Your task to perform on an android device: open app "NewsBreak: Local News & Alerts" (install if not already installed) Image 0: 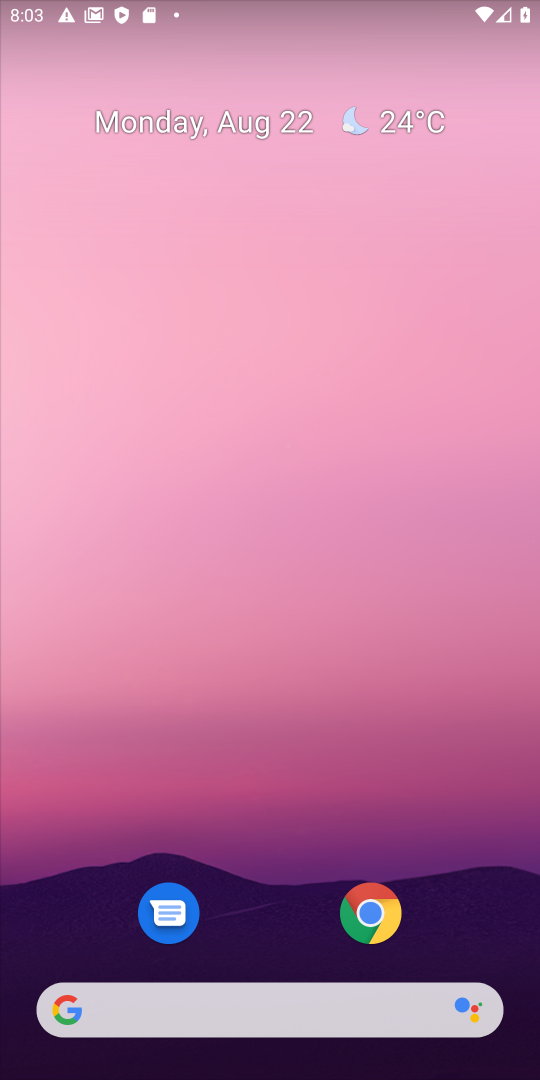
Step 0: drag from (255, 1005) to (168, 0)
Your task to perform on an android device: open app "NewsBreak: Local News & Alerts" (install if not already installed) Image 1: 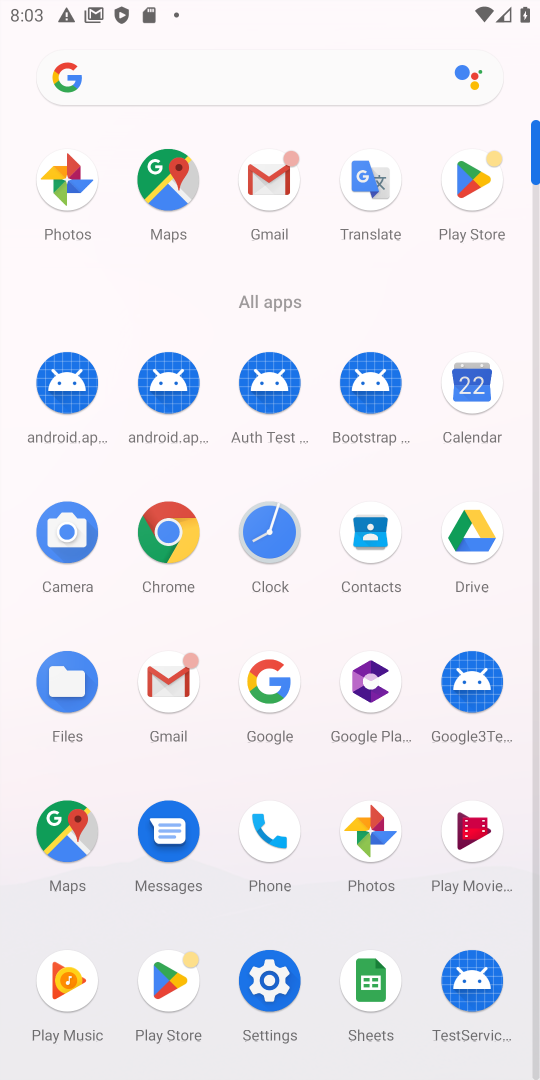
Step 1: click (480, 183)
Your task to perform on an android device: open app "NewsBreak: Local News & Alerts" (install if not already installed) Image 2: 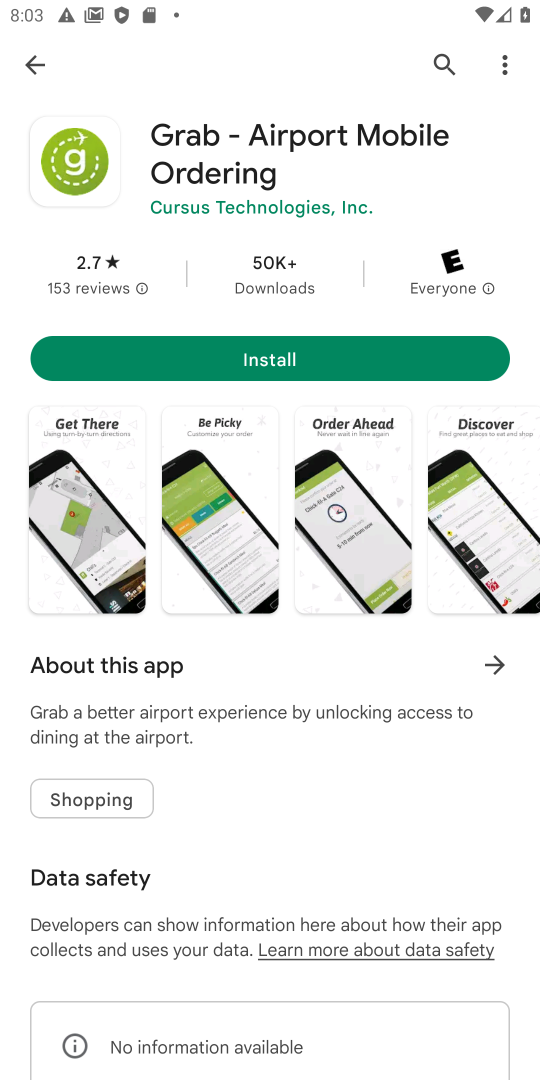
Step 2: click (460, 83)
Your task to perform on an android device: open app "NewsBreak: Local News & Alerts" (install if not already installed) Image 3: 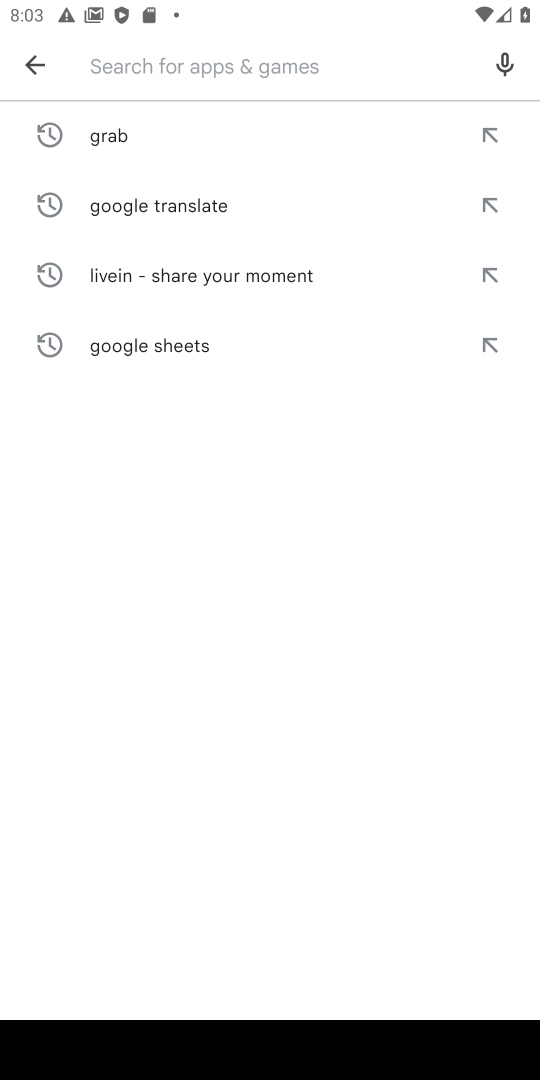
Step 3: type "newsbreak"
Your task to perform on an android device: open app "NewsBreak: Local News & Alerts" (install if not already installed) Image 4: 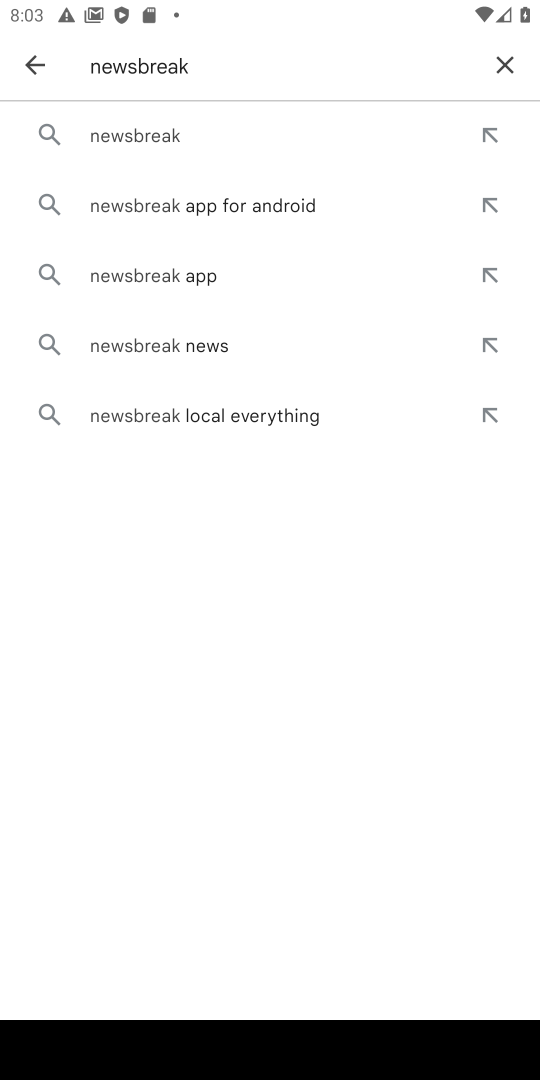
Step 4: click (175, 141)
Your task to perform on an android device: open app "NewsBreak: Local News & Alerts" (install if not already installed) Image 5: 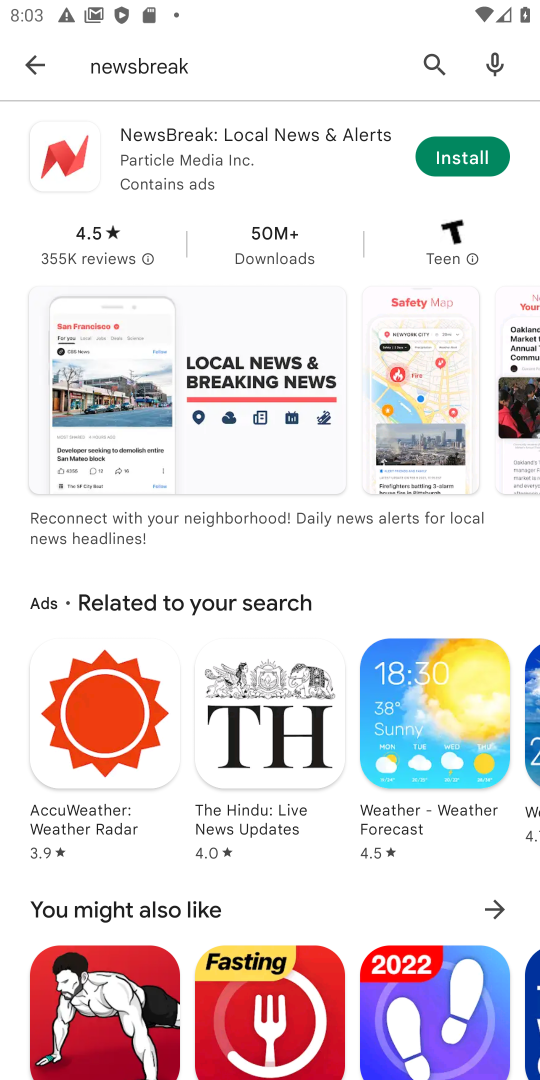
Step 5: click (455, 153)
Your task to perform on an android device: open app "NewsBreak: Local News & Alerts" (install if not already installed) Image 6: 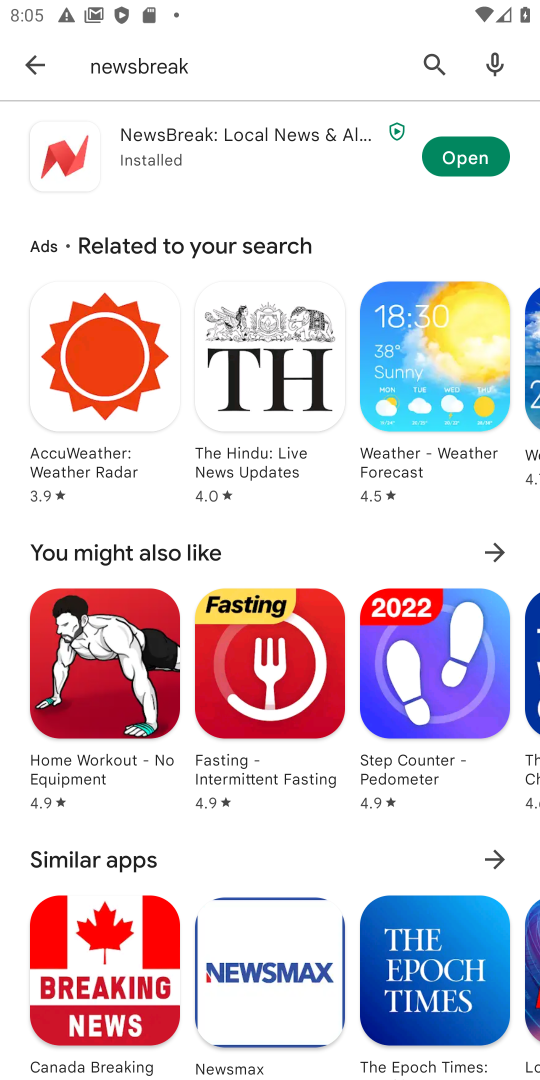
Step 6: click (459, 174)
Your task to perform on an android device: open app "NewsBreak: Local News & Alerts" (install if not already installed) Image 7: 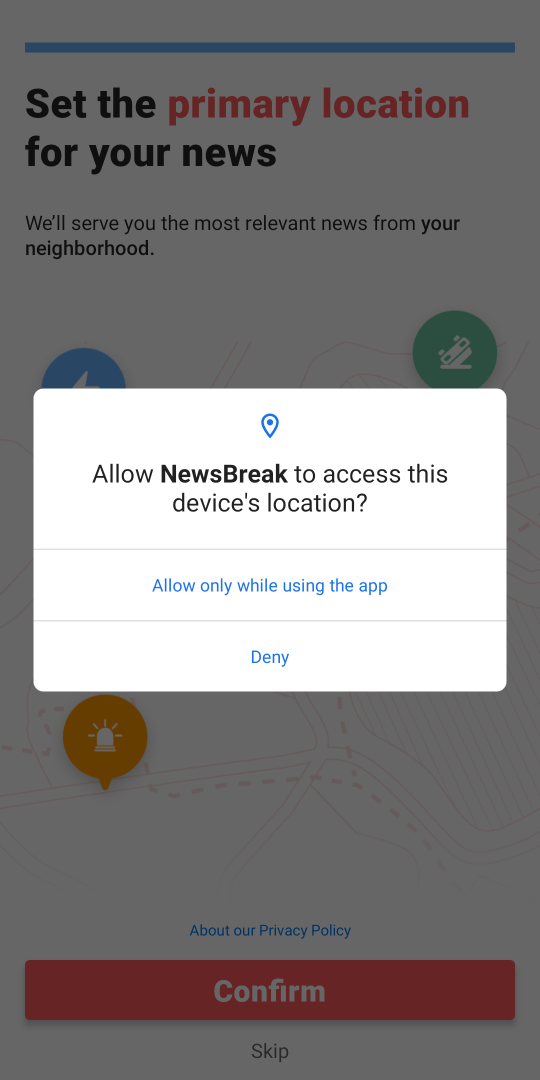
Step 7: task complete